Your task to perform on an android device: Look up the best selling books on Goodreads. Image 0: 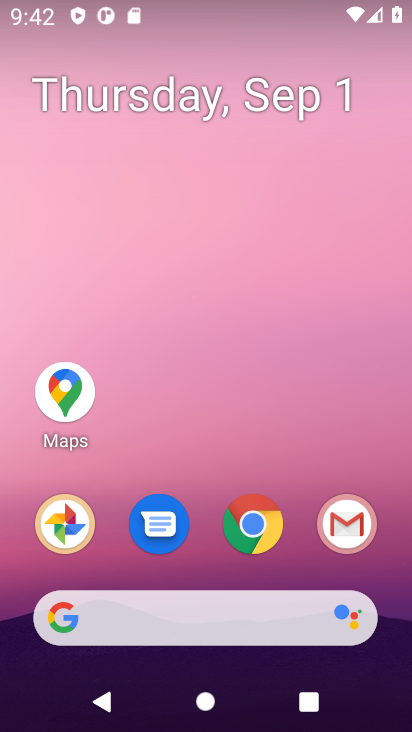
Step 0: drag from (392, 419) to (371, 90)
Your task to perform on an android device: Look up the best selling books on Goodreads. Image 1: 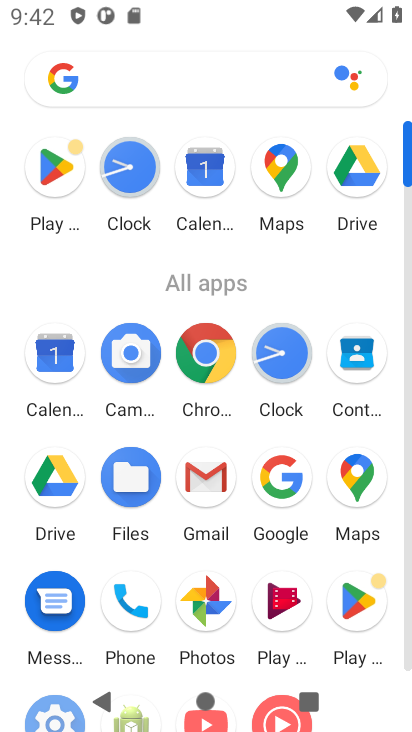
Step 1: click (197, 346)
Your task to perform on an android device: Look up the best selling books on Goodreads. Image 2: 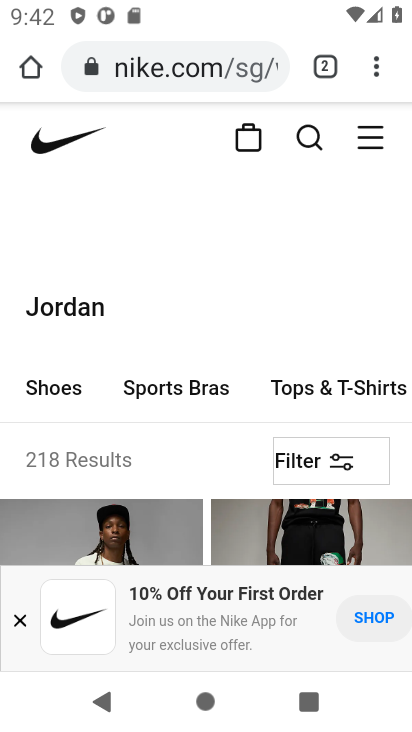
Step 2: click (197, 68)
Your task to perform on an android device: Look up the best selling books on Goodreads. Image 3: 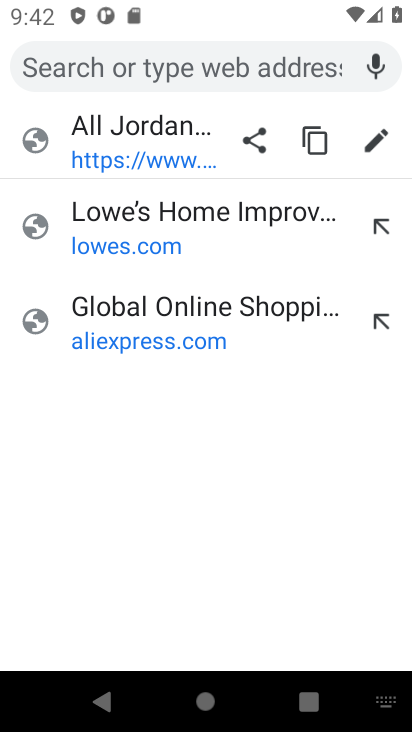
Step 3: type "goodreads "
Your task to perform on an android device: Look up the best selling books on Goodreads. Image 4: 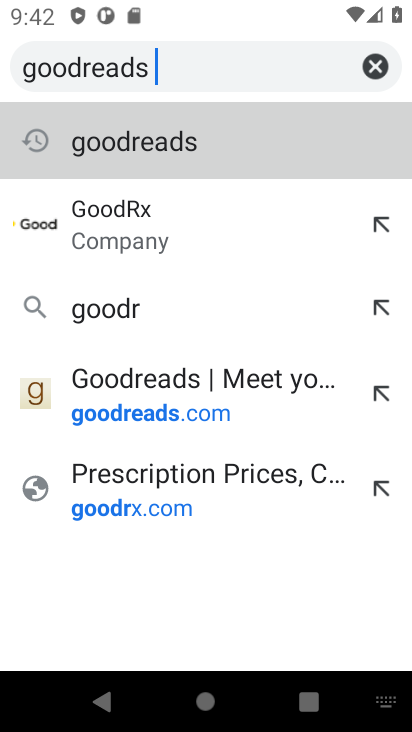
Step 4: press enter
Your task to perform on an android device: Look up the best selling books on Goodreads. Image 5: 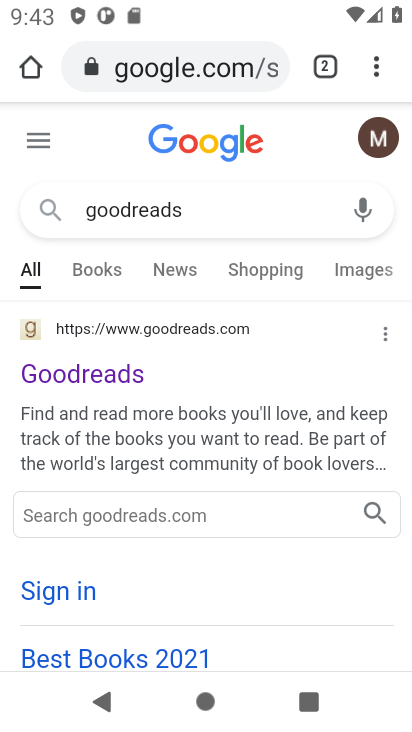
Step 5: click (111, 376)
Your task to perform on an android device: Look up the best selling books on Goodreads. Image 6: 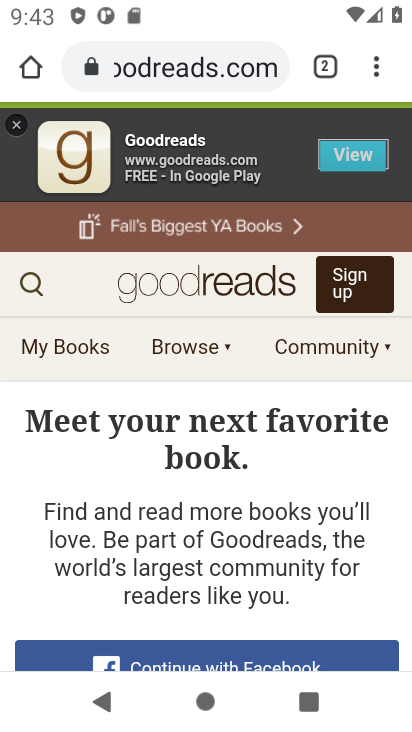
Step 6: click (34, 283)
Your task to perform on an android device: Look up the best selling books on Goodreads. Image 7: 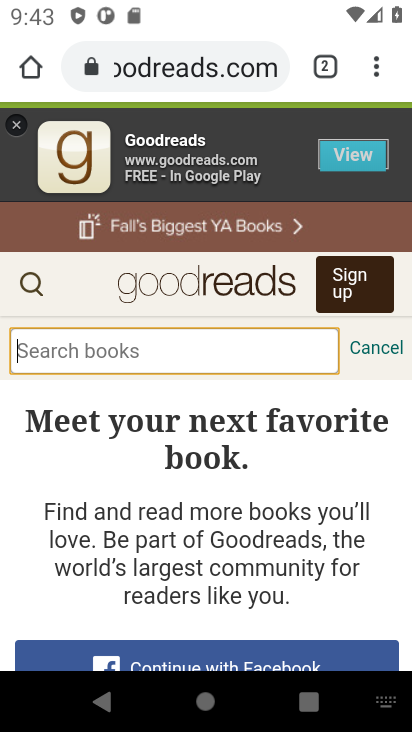
Step 7: click (106, 347)
Your task to perform on an android device: Look up the best selling books on Goodreads. Image 8: 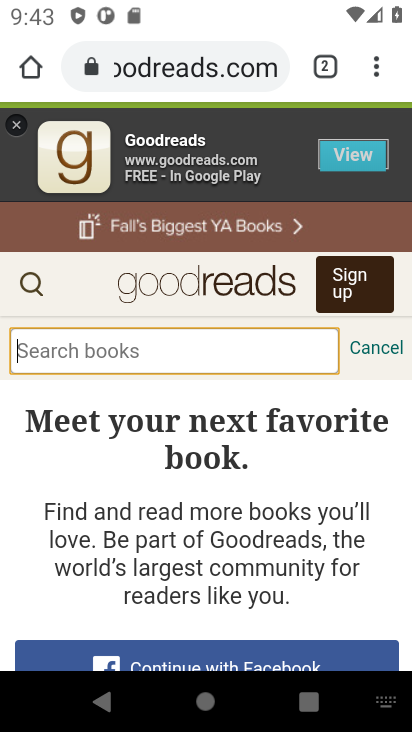
Step 8: press enter
Your task to perform on an android device: Look up the best selling books on Goodreads. Image 9: 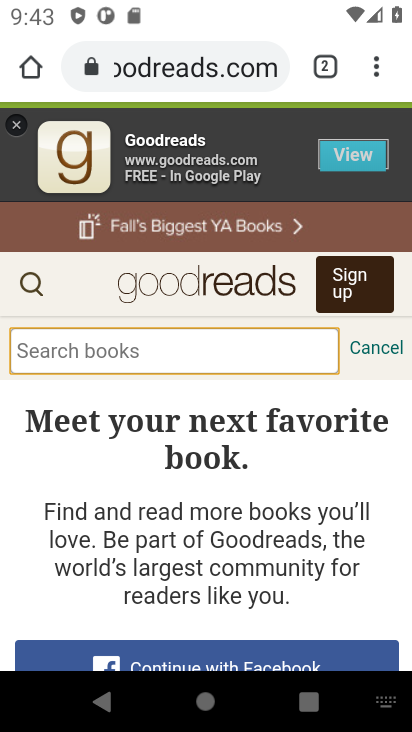
Step 9: type "best selling books"
Your task to perform on an android device: Look up the best selling books on Goodreads. Image 10: 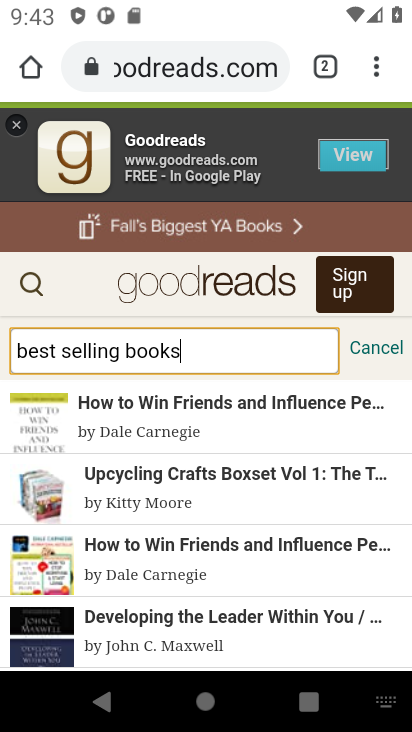
Step 10: task complete